Your task to perform on an android device: uninstall "Walmart Shopping & Grocery" Image 0: 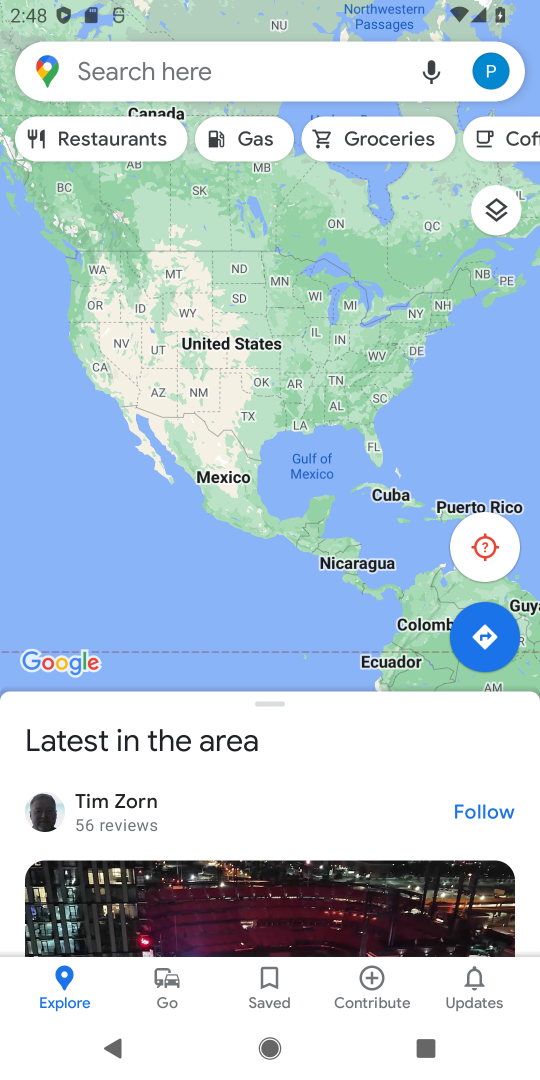
Step 0: press home button
Your task to perform on an android device: uninstall "Walmart Shopping & Grocery" Image 1: 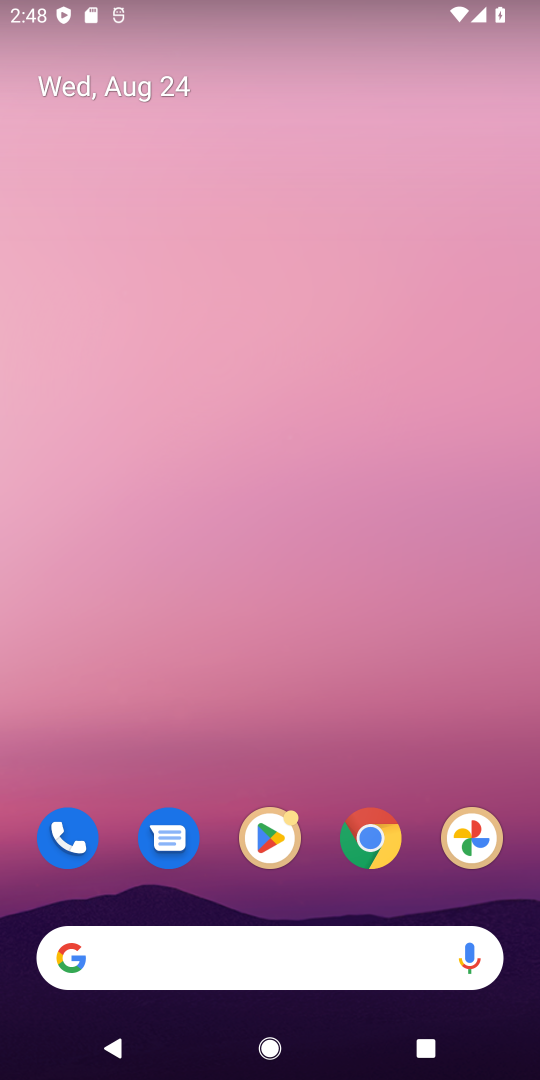
Step 1: drag from (414, 747) to (426, 64)
Your task to perform on an android device: uninstall "Walmart Shopping & Grocery" Image 2: 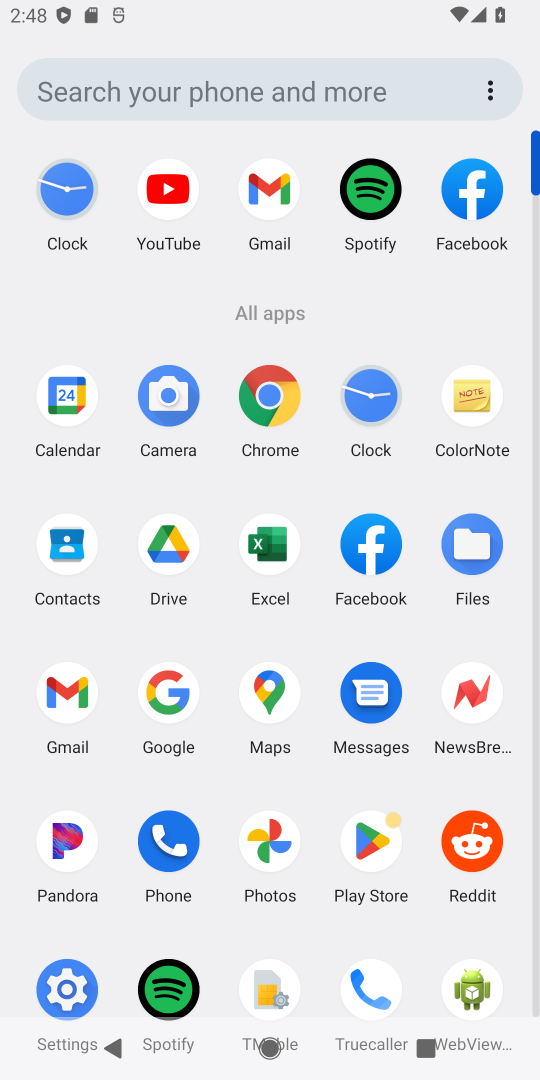
Step 2: click (374, 851)
Your task to perform on an android device: uninstall "Walmart Shopping & Grocery" Image 3: 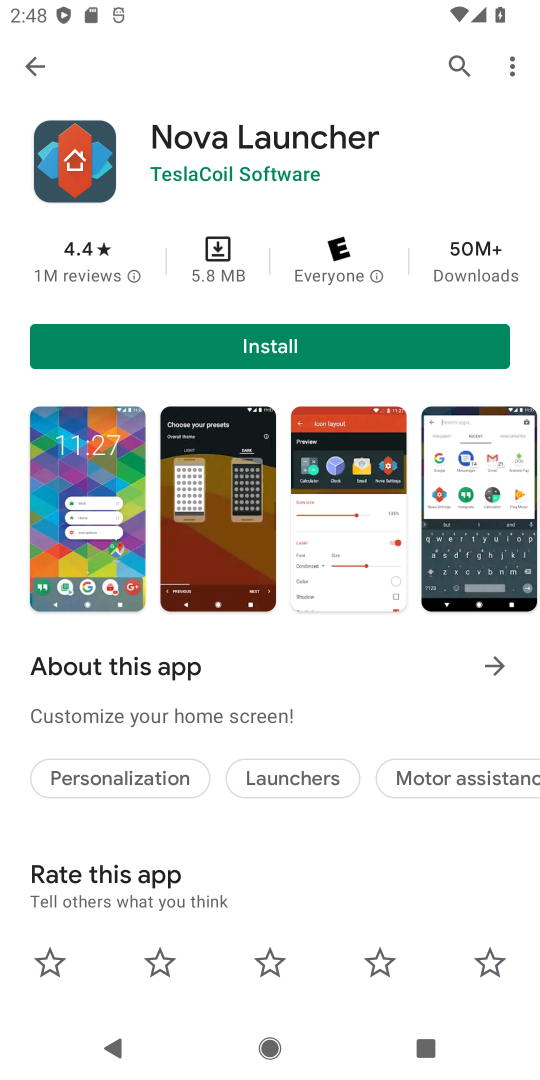
Step 3: press back button
Your task to perform on an android device: uninstall "Walmart Shopping & Grocery" Image 4: 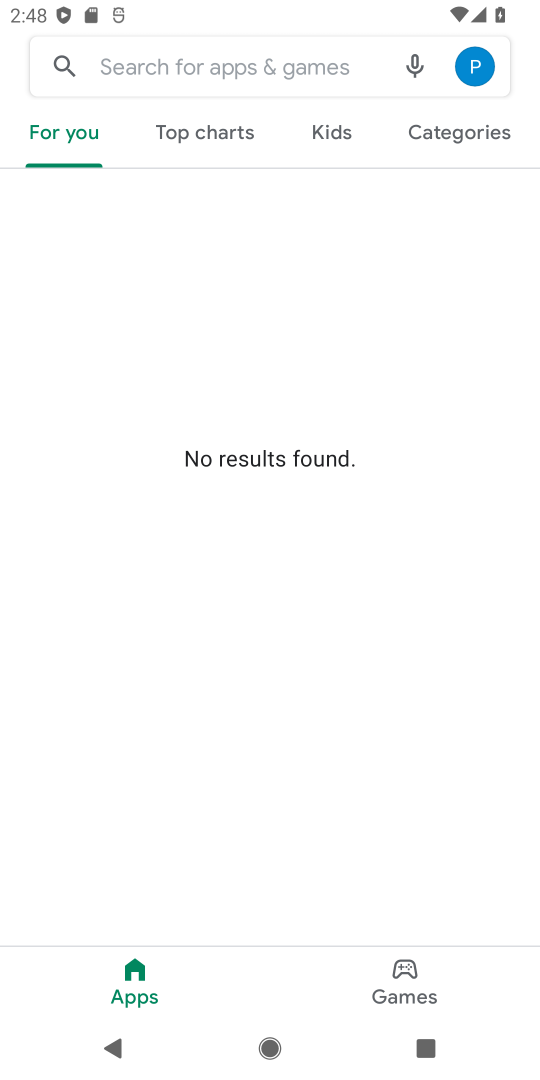
Step 4: click (227, 63)
Your task to perform on an android device: uninstall "Walmart Shopping & Grocery" Image 5: 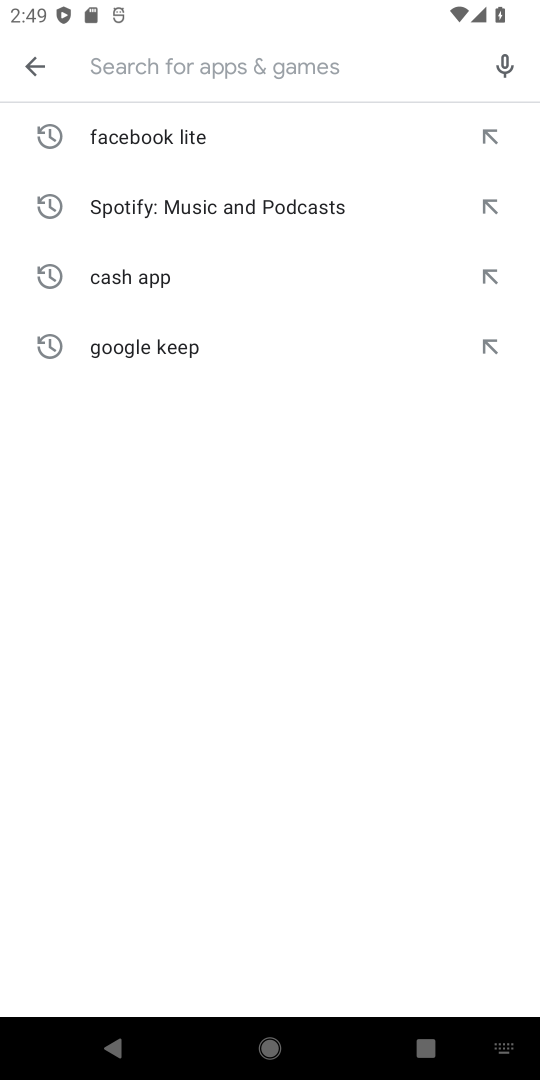
Step 5: type "Walmart Shopping & Grocery"
Your task to perform on an android device: uninstall "Walmart Shopping & Grocery" Image 6: 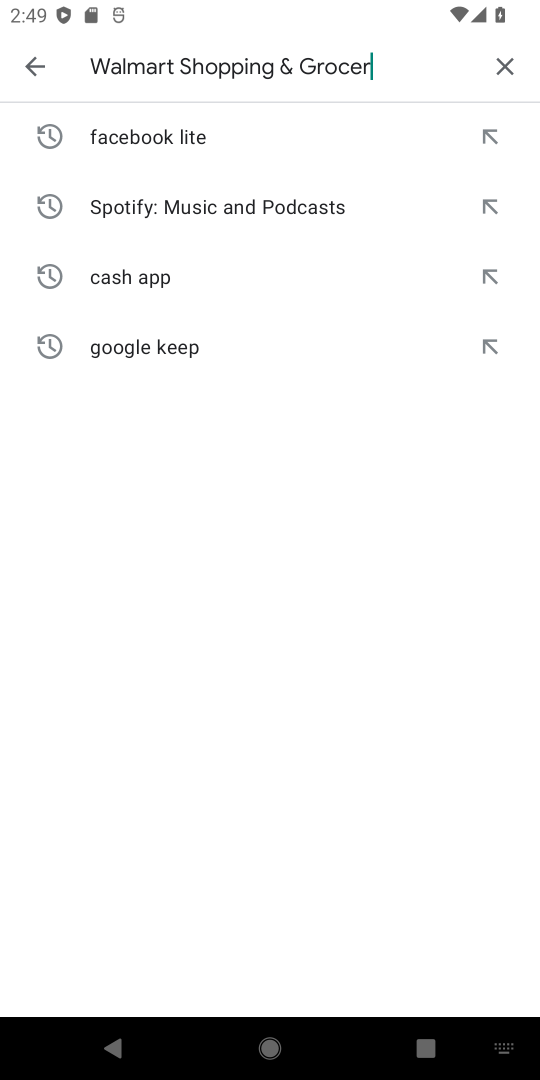
Step 6: press enter
Your task to perform on an android device: uninstall "Walmart Shopping & Grocery" Image 7: 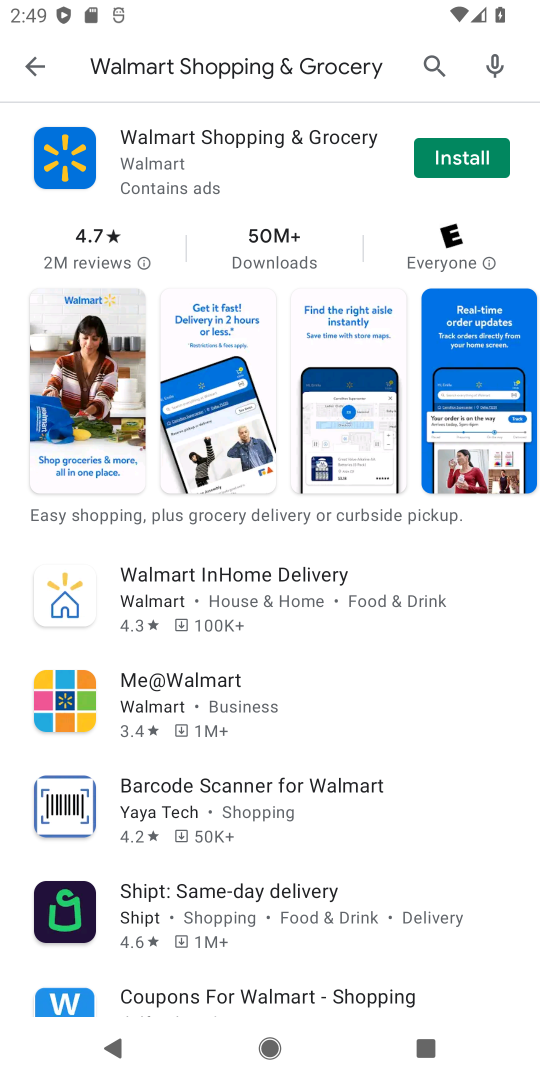
Step 7: task complete